Your task to perform on an android device: change the clock display to analog Image 0: 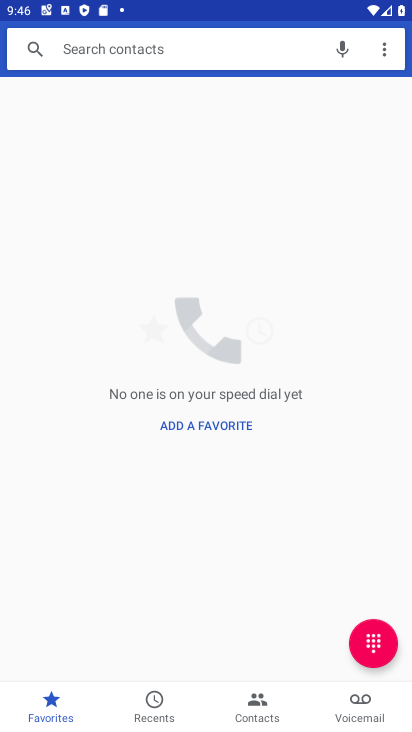
Step 0: press home button
Your task to perform on an android device: change the clock display to analog Image 1: 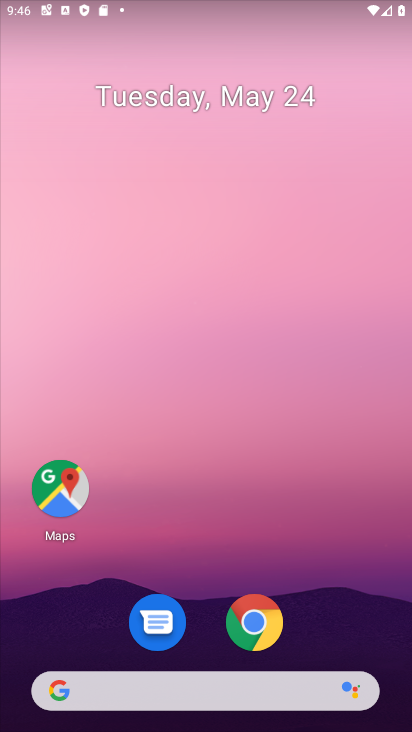
Step 1: drag from (213, 699) to (202, 217)
Your task to perform on an android device: change the clock display to analog Image 2: 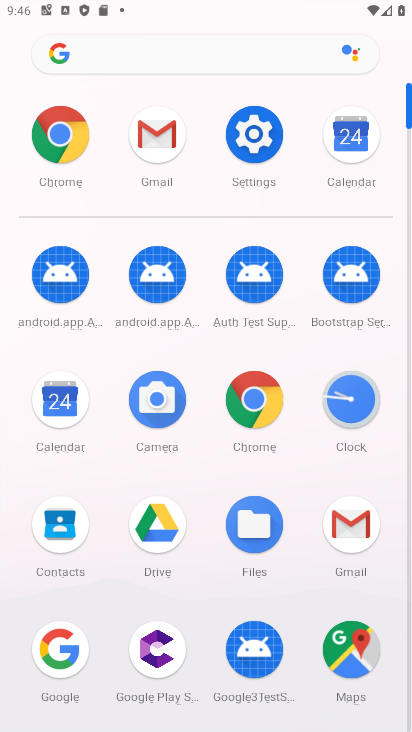
Step 2: click (341, 399)
Your task to perform on an android device: change the clock display to analog Image 3: 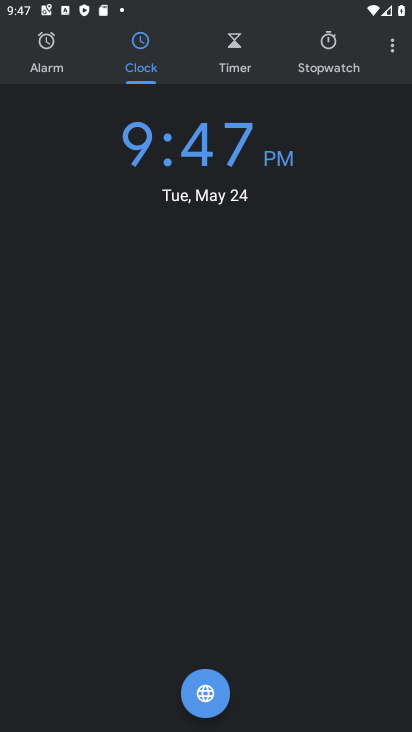
Step 3: click (396, 57)
Your task to perform on an android device: change the clock display to analog Image 4: 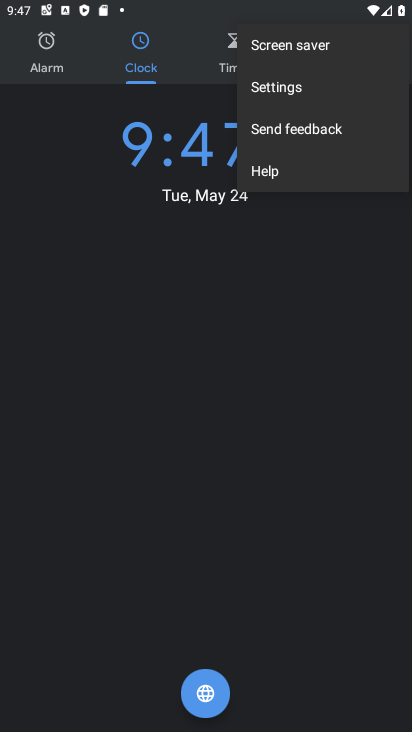
Step 4: click (317, 88)
Your task to perform on an android device: change the clock display to analog Image 5: 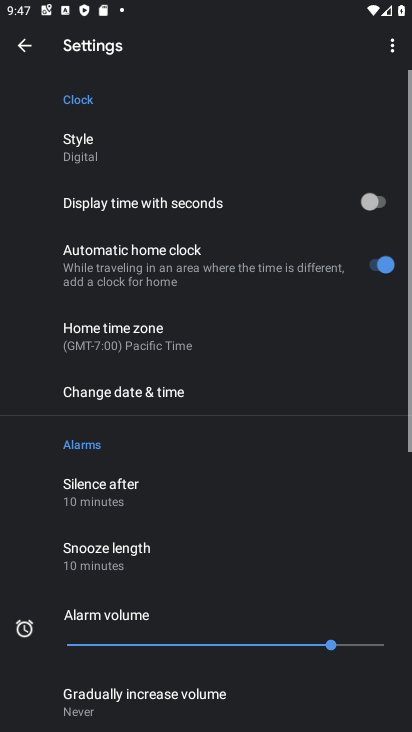
Step 5: click (201, 159)
Your task to perform on an android device: change the clock display to analog Image 6: 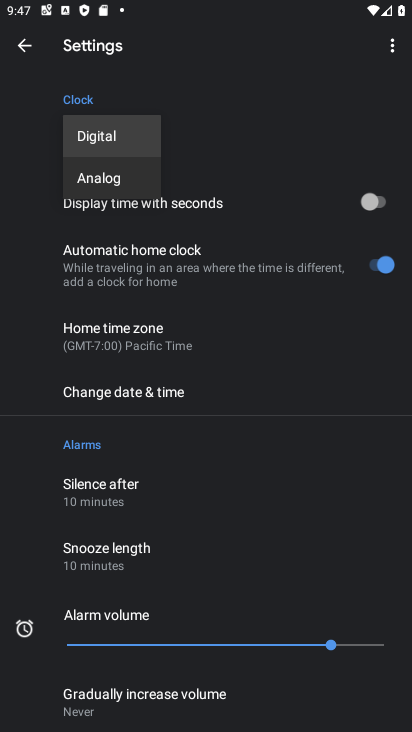
Step 6: click (118, 182)
Your task to perform on an android device: change the clock display to analog Image 7: 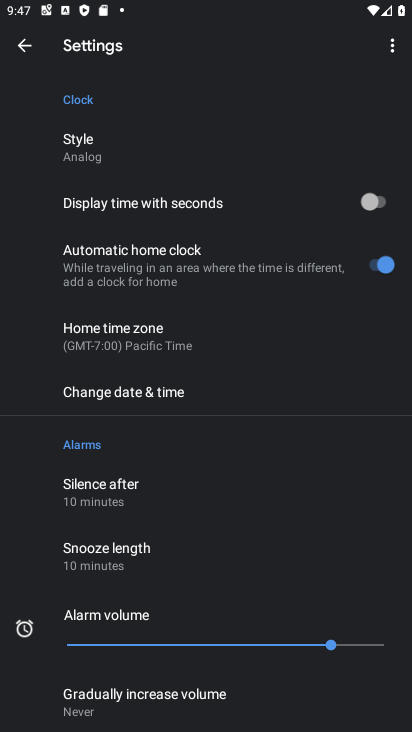
Step 7: task complete